Your task to perform on an android device: toggle location history Image 0: 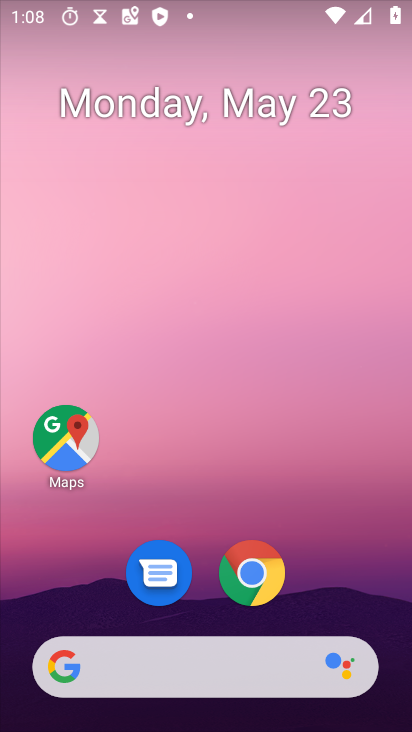
Step 0: press home button
Your task to perform on an android device: toggle location history Image 1: 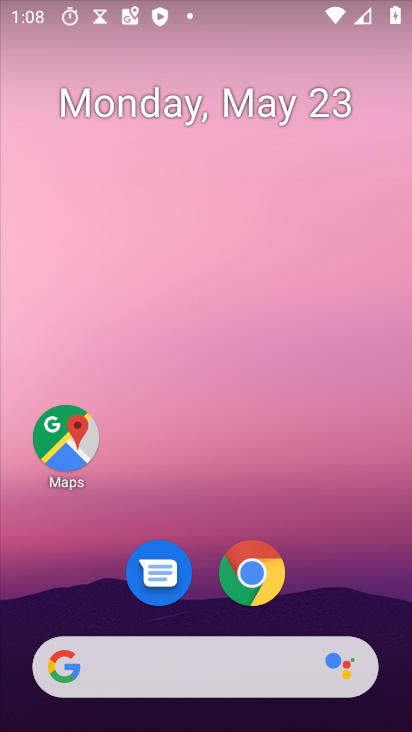
Step 1: click (65, 449)
Your task to perform on an android device: toggle location history Image 2: 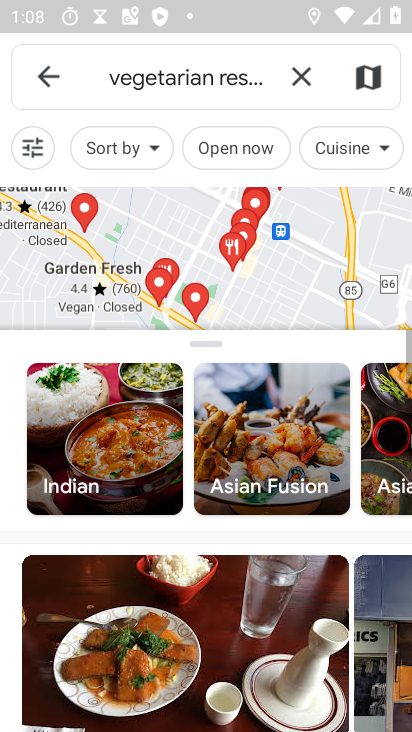
Step 2: click (51, 73)
Your task to perform on an android device: toggle location history Image 3: 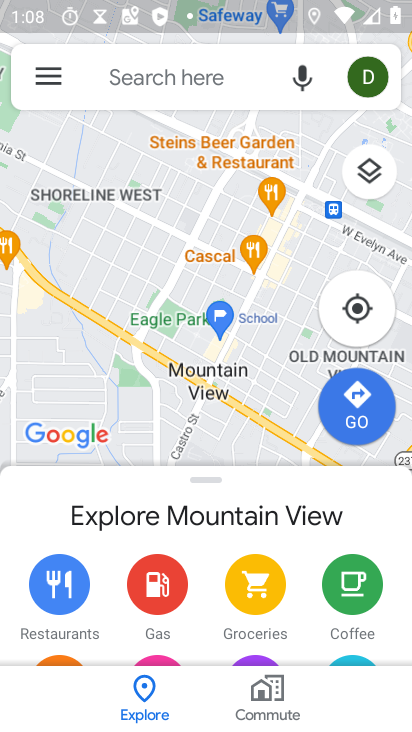
Step 3: click (46, 77)
Your task to perform on an android device: toggle location history Image 4: 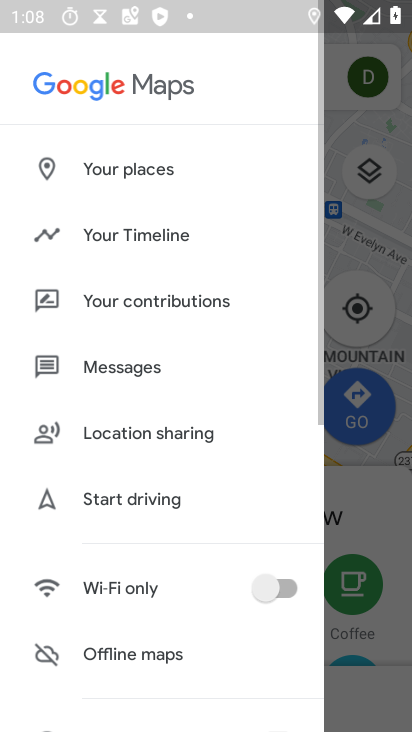
Step 4: click (165, 230)
Your task to perform on an android device: toggle location history Image 5: 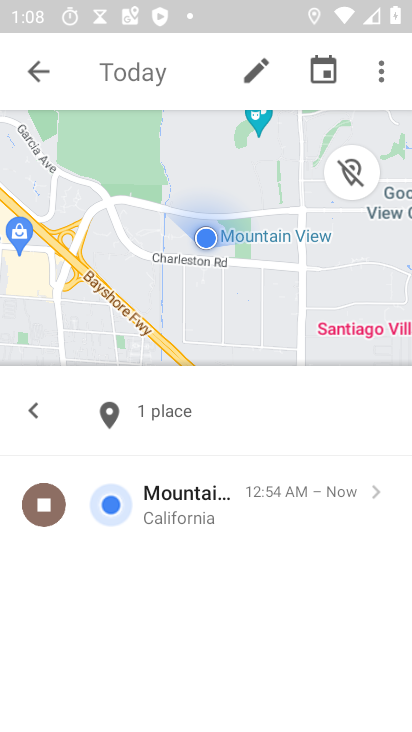
Step 5: click (373, 78)
Your task to perform on an android device: toggle location history Image 6: 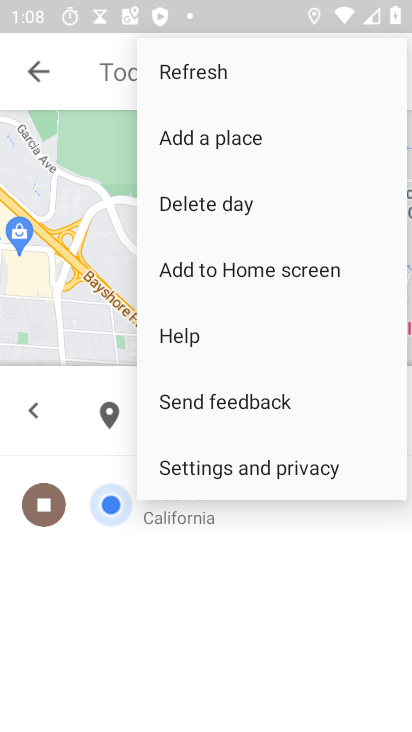
Step 6: click (211, 468)
Your task to perform on an android device: toggle location history Image 7: 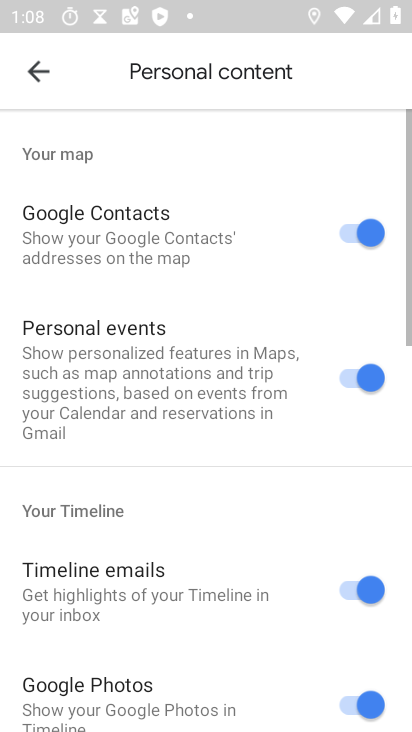
Step 7: drag from (206, 627) to (290, 41)
Your task to perform on an android device: toggle location history Image 8: 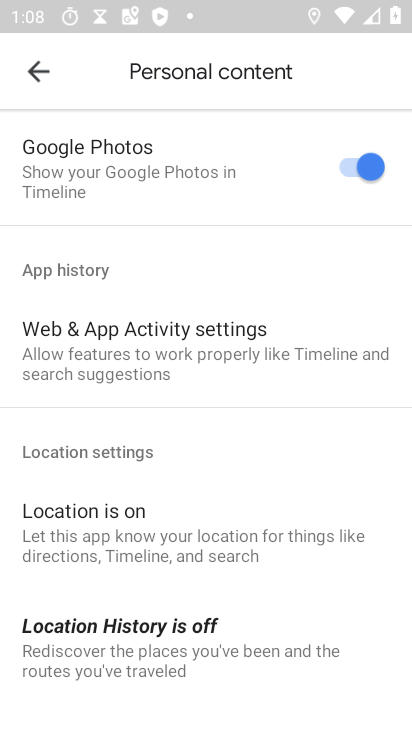
Step 8: drag from (244, 563) to (315, 246)
Your task to perform on an android device: toggle location history Image 9: 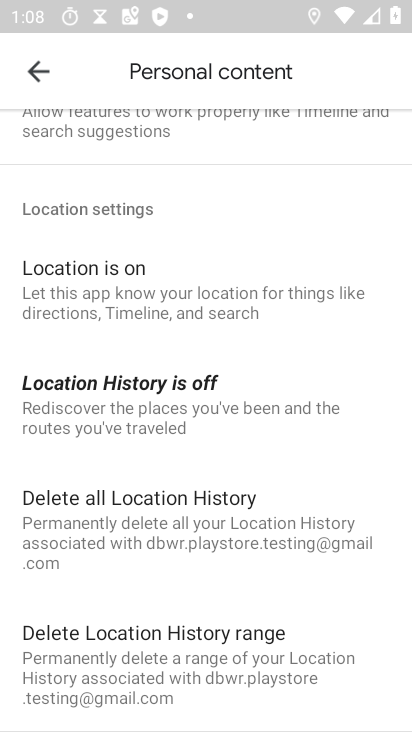
Step 9: click (190, 382)
Your task to perform on an android device: toggle location history Image 10: 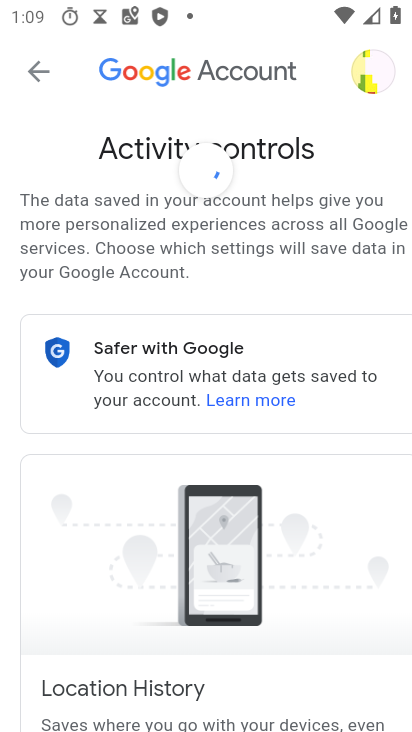
Step 10: drag from (149, 610) to (357, 80)
Your task to perform on an android device: toggle location history Image 11: 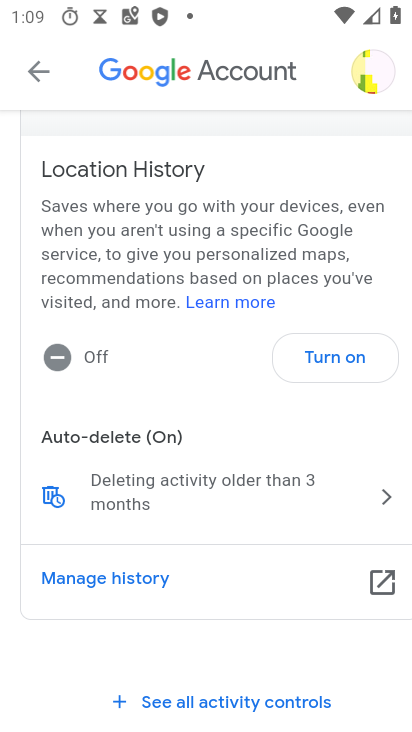
Step 11: click (335, 362)
Your task to perform on an android device: toggle location history Image 12: 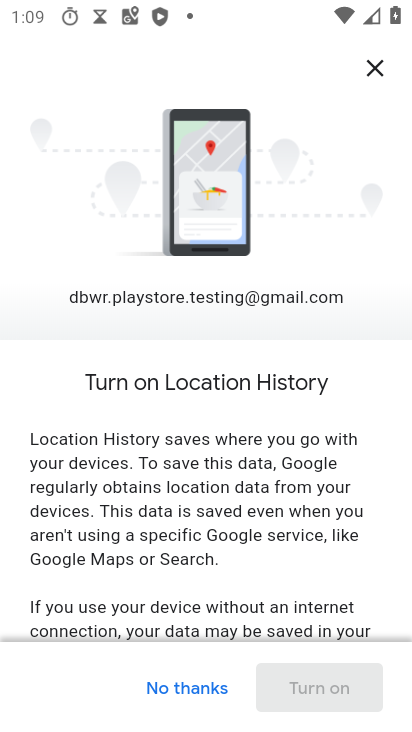
Step 12: drag from (306, 570) to (411, 212)
Your task to perform on an android device: toggle location history Image 13: 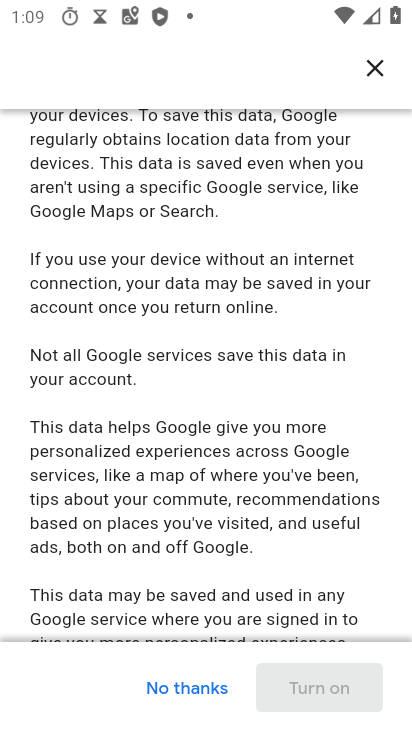
Step 13: drag from (270, 603) to (404, 103)
Your task to perform on an android device: toggle location history Image 14: 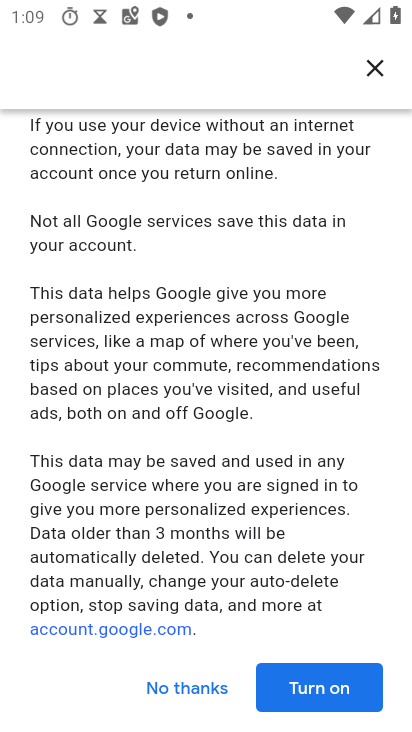
Step 14: click (312, 695)
Your task to perform on an android device: toggle location history Image 15: 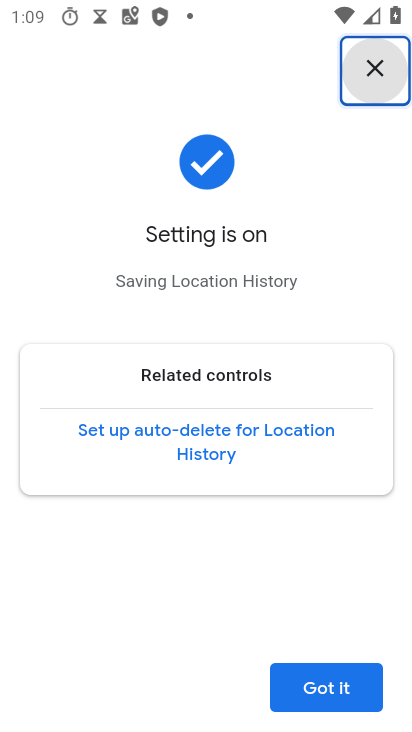
Step 15: click (319, 693)
Your task to perform on an android device: toggle location history Image 16: 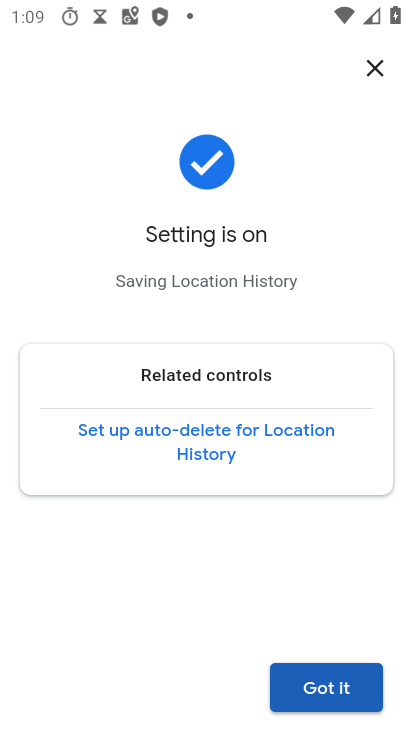
Step 16: click (325, 689)
Your task to perform on an android device: toggle location history Image 17: 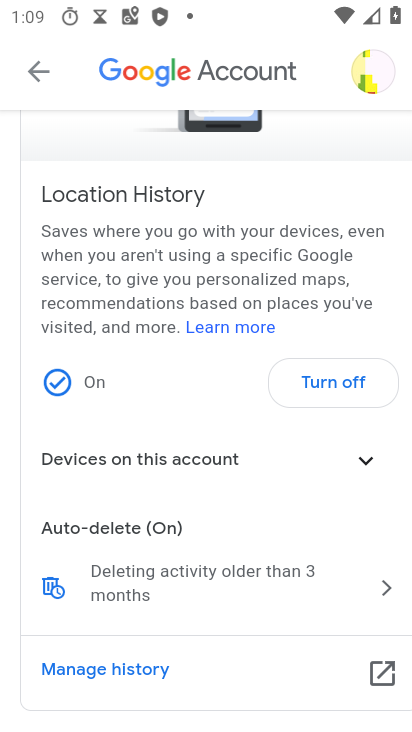
Step 17: task complete